Your task to perform on an android device: Go to Google Image 0: 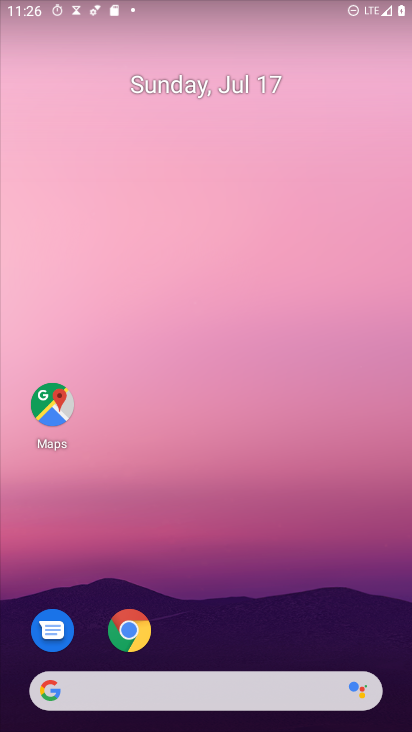
Step 0: drag from (138, 702) to (107, 0)
Your task to perform on an android device: Go to Google Image 1: 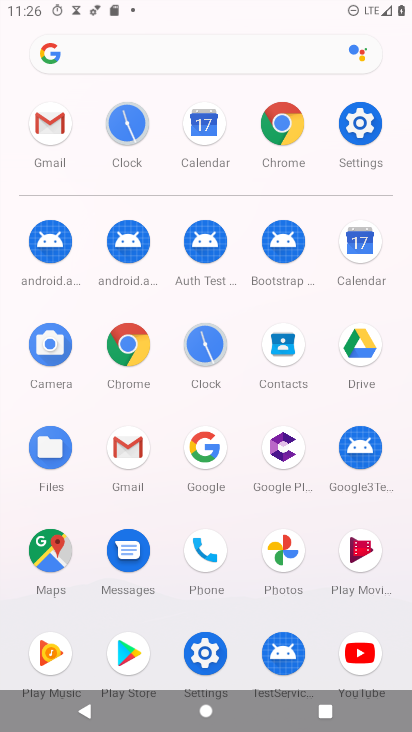
Step 1: click (121, 345)
Your task to perform on an android device: Go to Google Image 2: 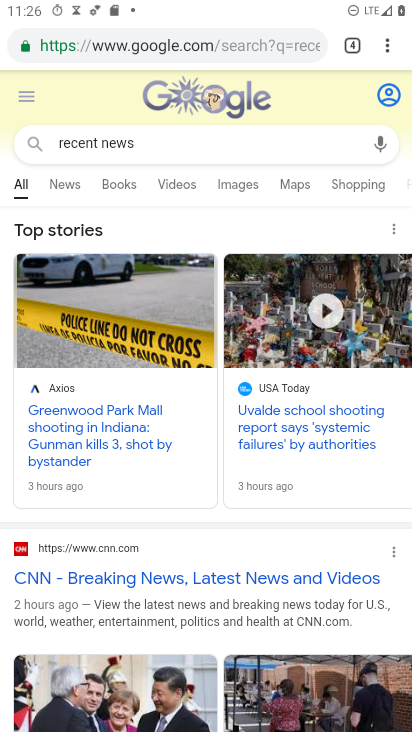
Step 2: click (379, 41)
Your task to perform on an android device: Go to Google Image 3: 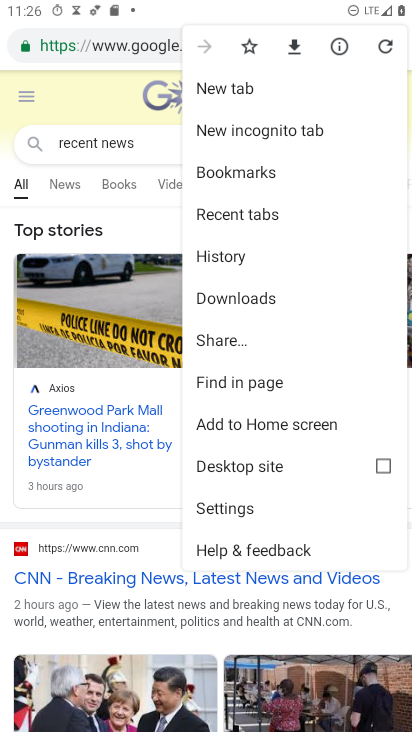
Step 3: click (340, 70)
Your task to perform on an android device: Go to Google Image 4: 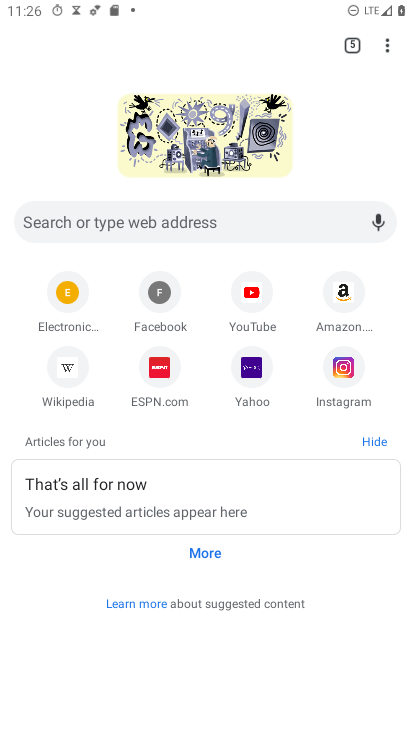
Step 4: task complete